Your task to perform on an android device: Search for the best rated desk chair on Article.com Image 0: 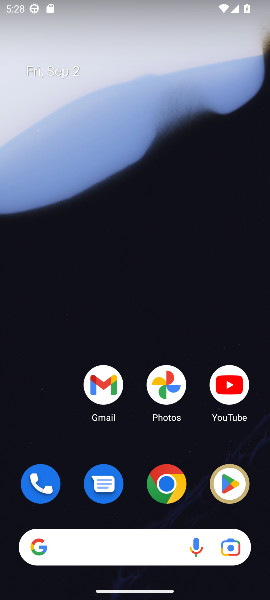
Step 0: click (164, 487)
Your task to perform on an android device: Search for the best rated desk chair on Article.com Image 1: 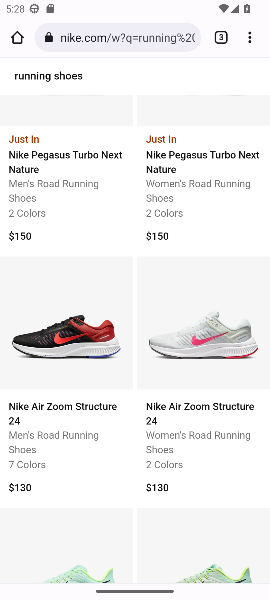
Step 1: click (150, 39)
Your task to perform on an android device: Search for the best rated desk chair on Article.com Image 2: 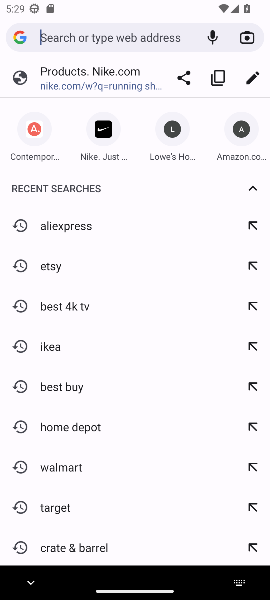
Step 2: type "Article.com"
Your task to perform on an android device: Search for the best rated desk chair on Article.com Image 3: 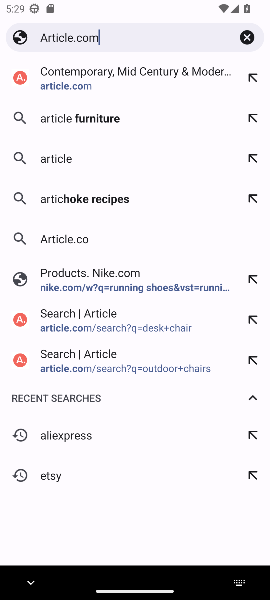
Step 3: press enter
Your task to perform on an android device: Search for the best rated desk chair on Article.com Image 4: 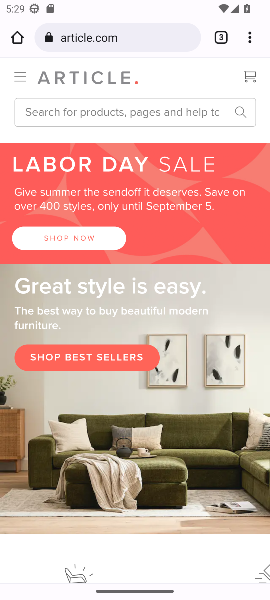
Step 4: click (172, 112)
Your task to perform on an android device: Search for the best rated desk chair on Article.com Image 5: 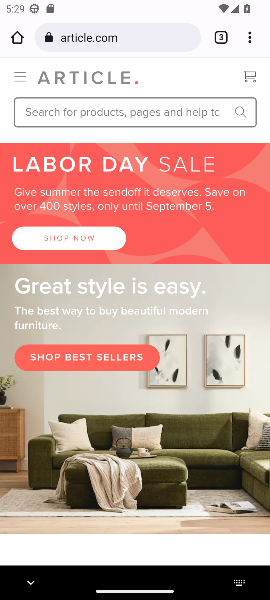
Step 5: click (172, 112)
Your task to perform on an android device: Search for the best rated desk chair on Article.com Image 6: 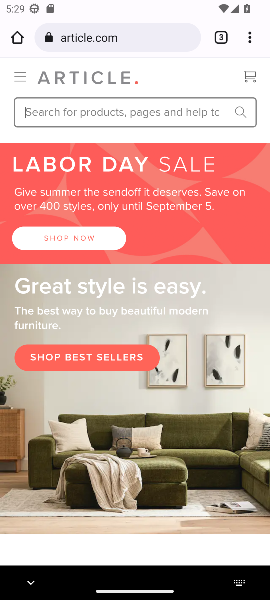
Step 6: type " desk chair"
Your task to perform on an android device: Search for the best rated desk chair on Article.com Image 7: 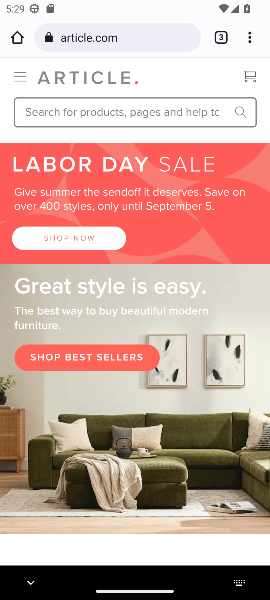
Step 7: press enter
Your task to perform on an android device: Search for the best rated desk chair on Article.com Image 8: 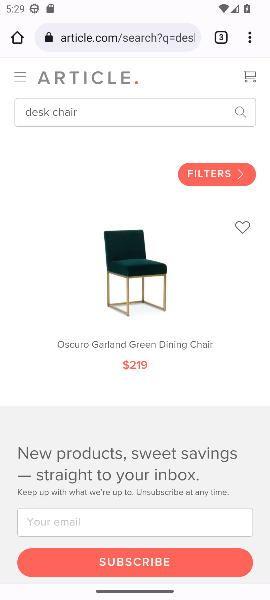
Step 8: task complete